Your task to perform on an android device: Open Yahoo.com Image 0: 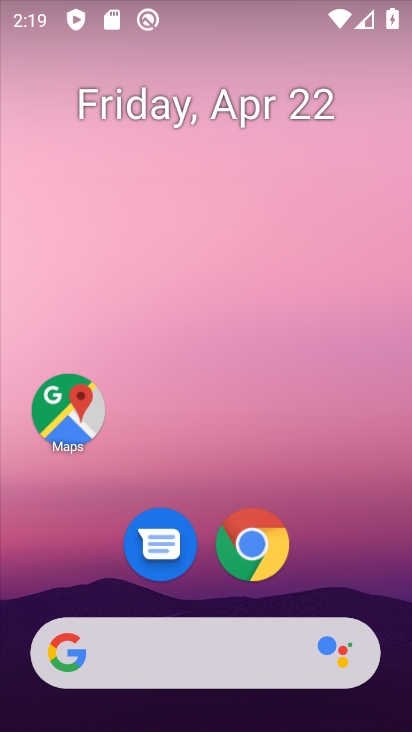
Step 0: click (255, 548)
Your task to perform on an android device: Open Yahoo.com Image 1: 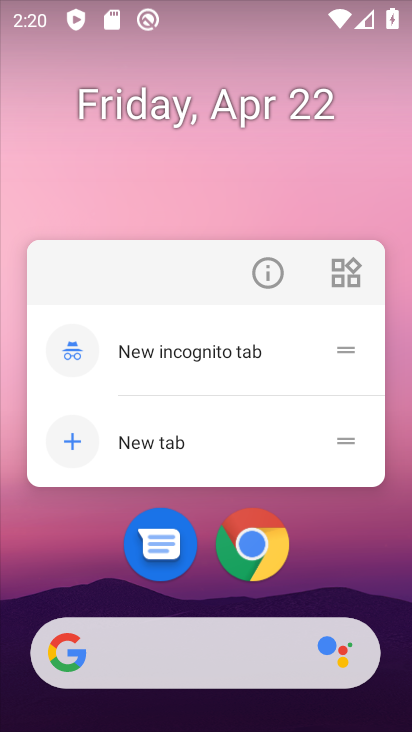
Step 1: click (249, 543)
Your task to perform on an android device: Open Yahoo.com Image 2: 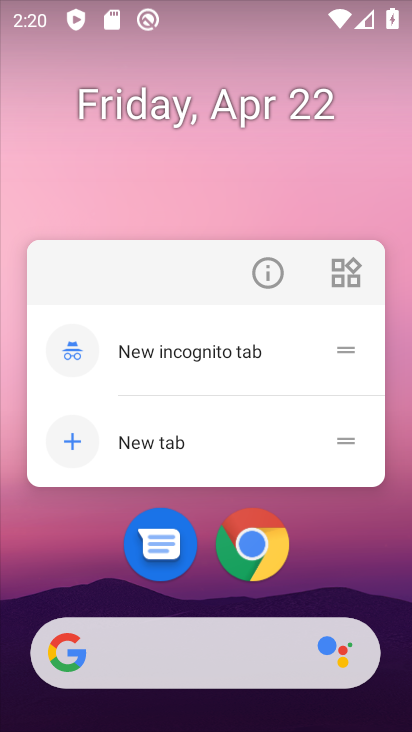
Step 2: click (257, 543)
Your task to perform on an android device: Open Yahoo.com Image 3: 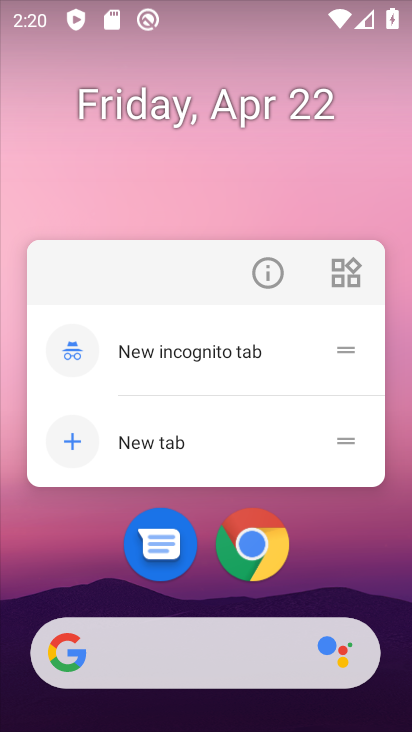
Step 3: click (261, 535)
Your task to perform on an android device: Open Yahoo.com Image 4: 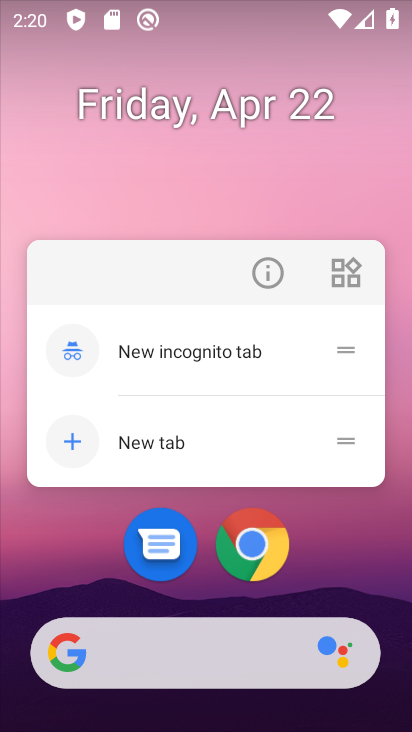
Step 4: click (264, 529)
Your task to perform on an android device: Open Yahoo.com Image 5: 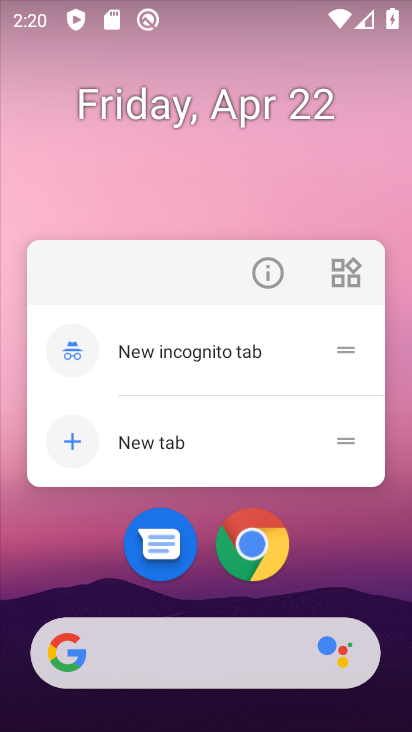
Step 5: click (272, 525)
Your task to perform on an android device: Open Yahoo.com Image 6: 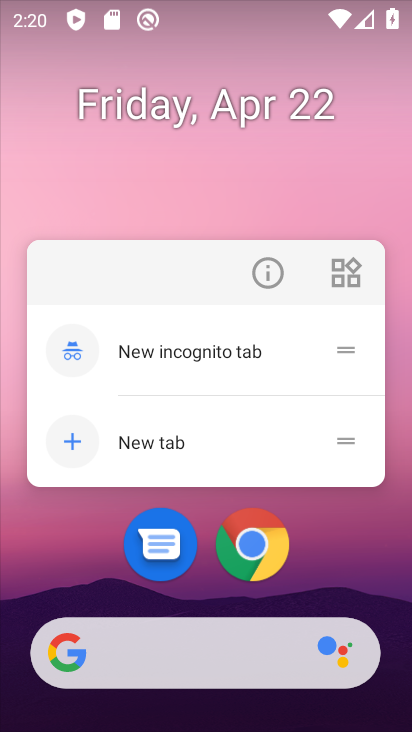
Step 6: click (254, 569)
Your task to perform on an android device: Open Yahoo.com Image 7: 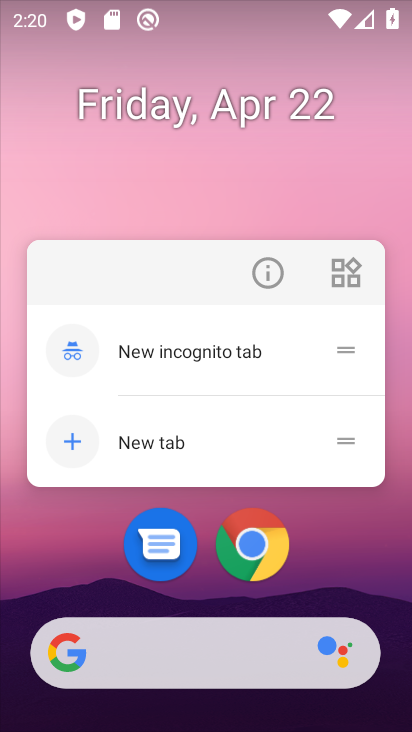
Step 7: click (258, 565)
Your task to perform on an android device: Open Yahoo.com Image 8: 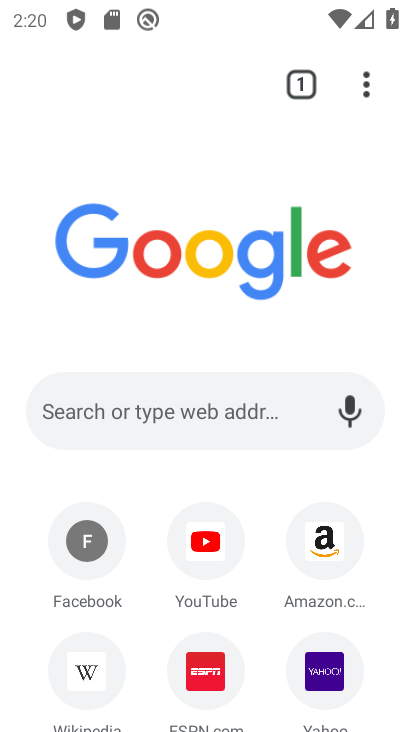
Step 8: click (322, 656)
Your task to perform on an android device: Open Yahoo.com Image 9: 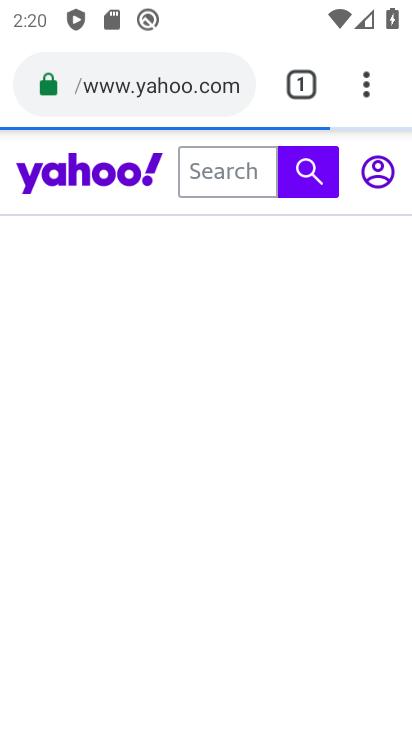
Step 9: task complete